Your task to perform on an android device: What's on my calendar tomorrow? Image 0: 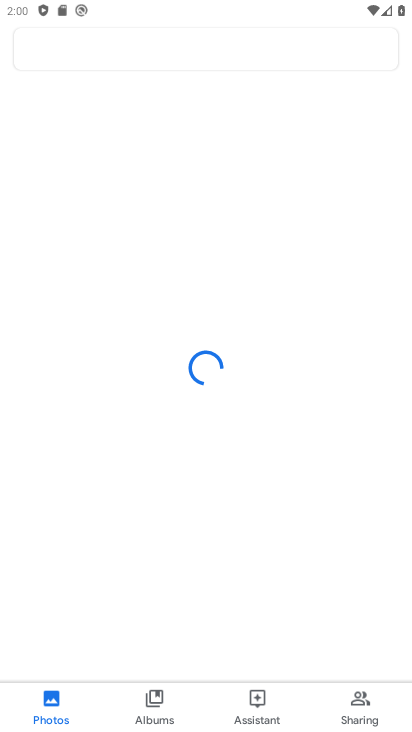
Step 0: press back button
Your task to perform on an android device: What's on my calendar tomorrow? Image 1: 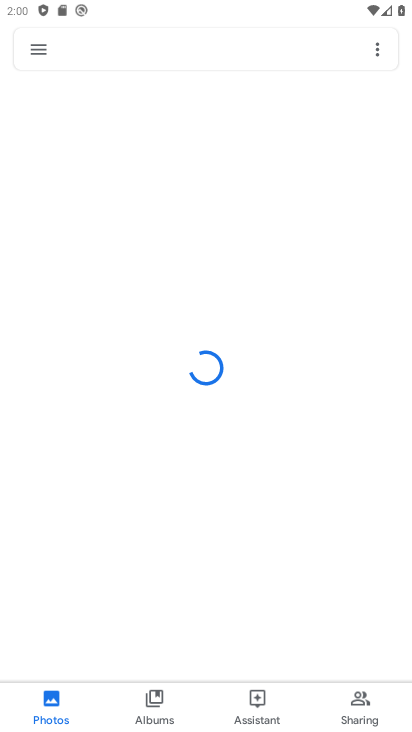
Step 1: press back button
Your task to perform on an android device: What's on my calendar tomorrow? Image 2: 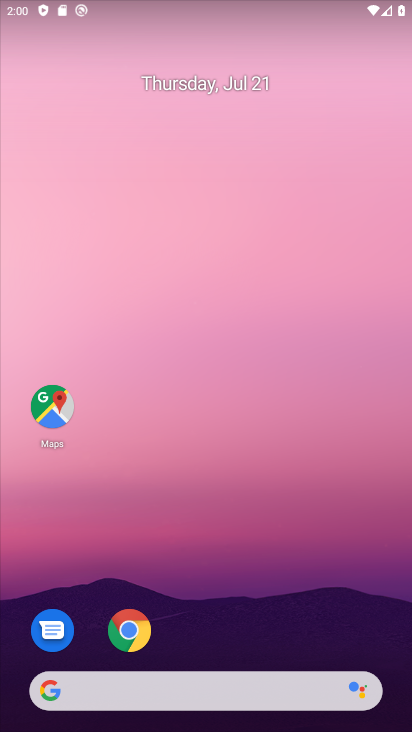
Step 2: drag from (236, 677) to (148, 144)
Your task to perform on an android device: What's on my calendar tomorrow? Image 3: 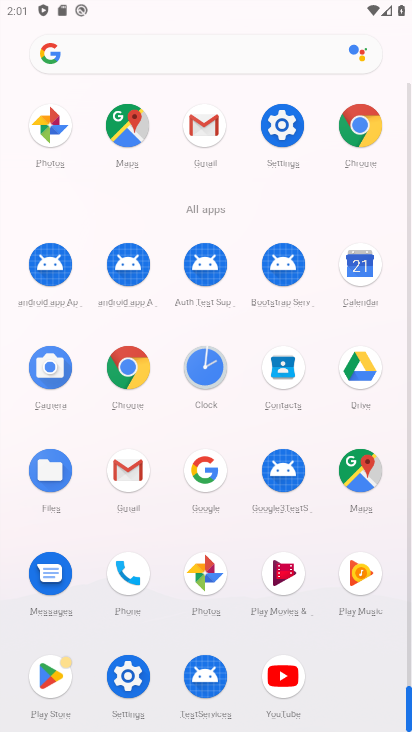
Step 3: click (360, 264)
Your task to perform on an android device: What's on my calendar tomorrow? Image 4: 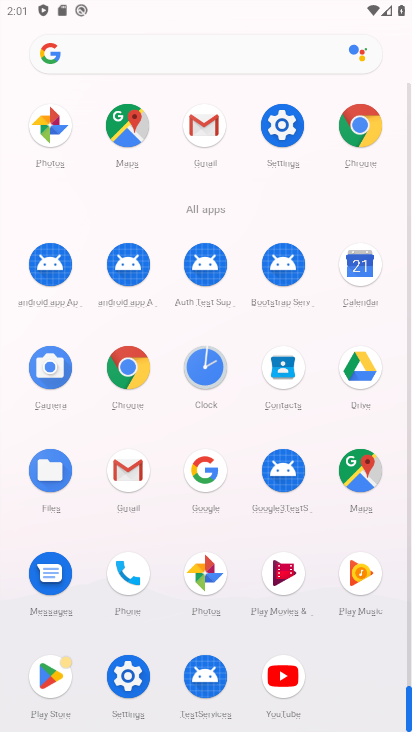
Step 4: click (360, 265)
Your task to perform on an android device: What's on my calendar tomorrow? Image 5: 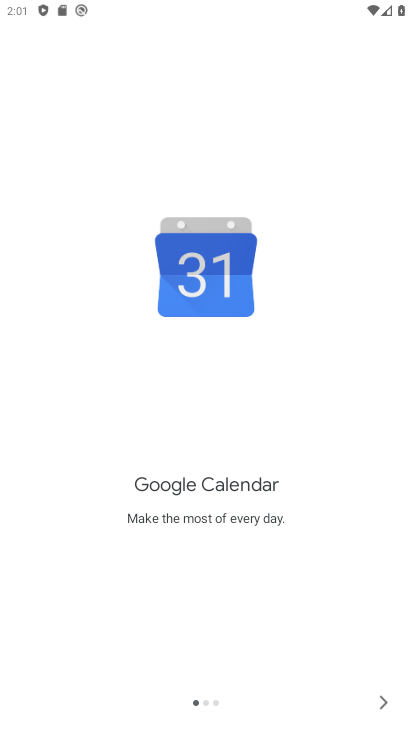
Step 5: click (378, 689)
Your task to perform on an android device: What's on my calendar tomorrow? Image 6: 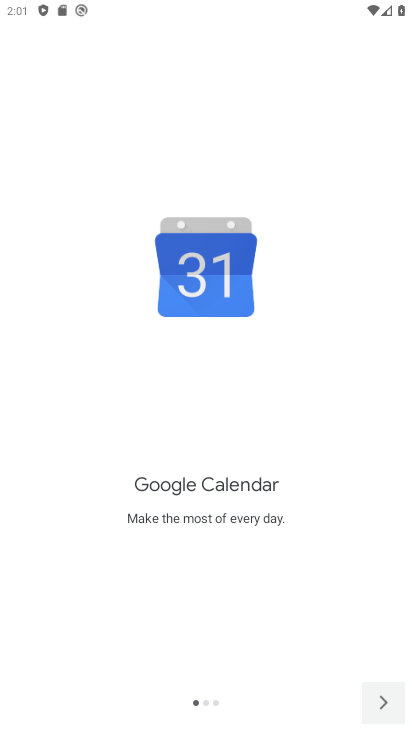
Step 6: click (370, 698)
Your task to perform on an android device: What's on my calendar tomorrow? Image 7: 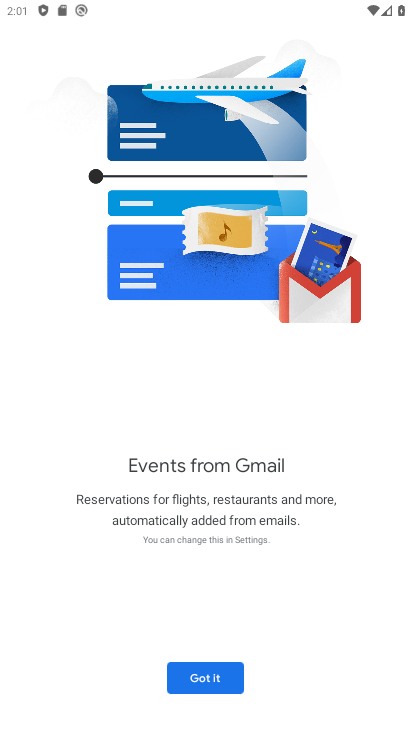
Step 7: click (206, 666)
Your task to perform on an android device: What's on my calendar tomorrow? Image 8: 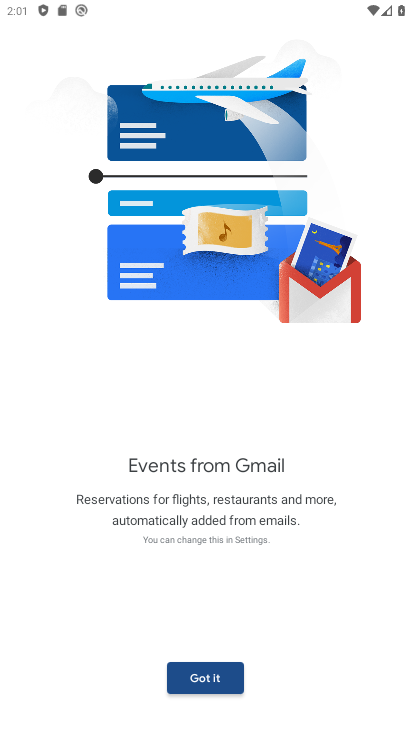
Step 8: click (207, 667)
Your task to perform on an android device: What's on my calendar tomorrow? Image 9: 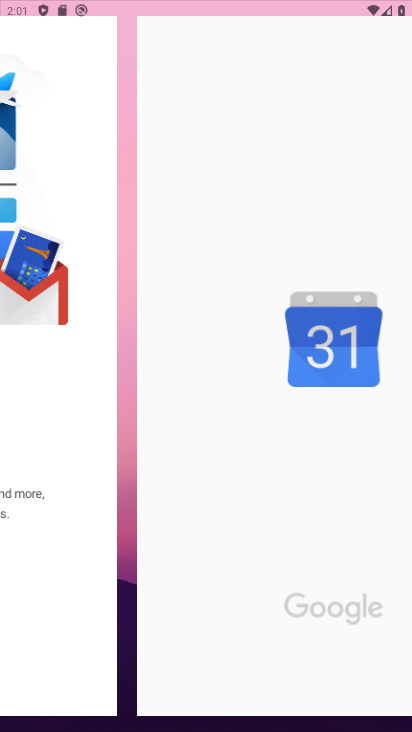
Step 9: click (209, 669)
Your task to perform on an android device: What's on my calendar tomorrow? Image 10: 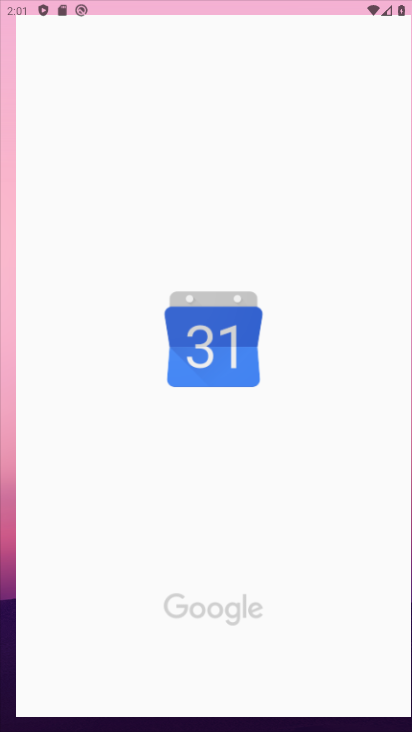
Step 10: click (209, 669)
Your task to perform on an android device: What's on my calendar tomorrow? Image 11: 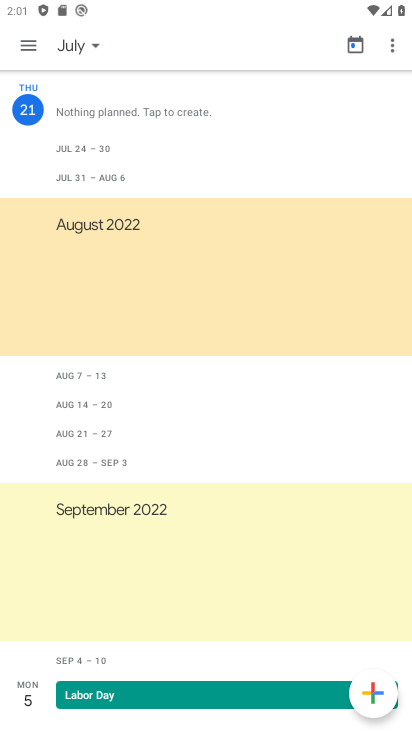
Step 11: click (99, 47)
Your task to perform on an android device: What's on my calendar tomorrow? Image 12: 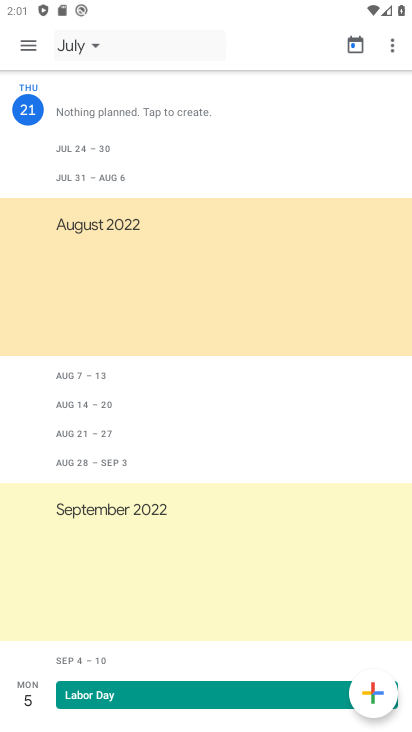
Step 12: click (99, 47)
Your task to perform on an android device: What's on my calendar tomorrow? Image 13: 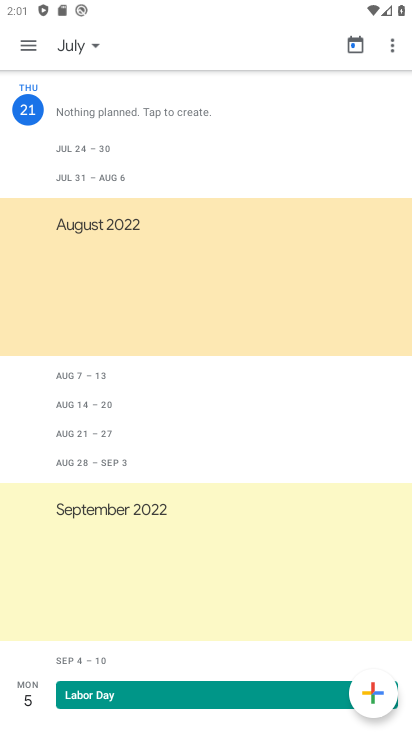
Step 13: click (94, 43)
Your task to perform on an android device: What's on my calendar tomorrow? Image 14: 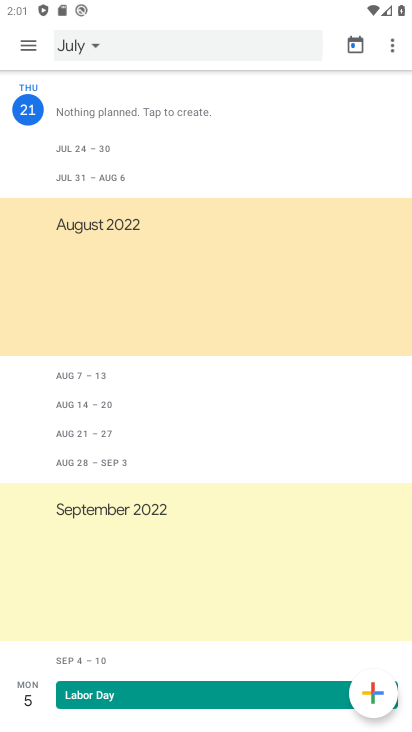
Step 14: click (94, 41)
Your task to perform on an android device: What's on my calendar tomorrow? Image 15: 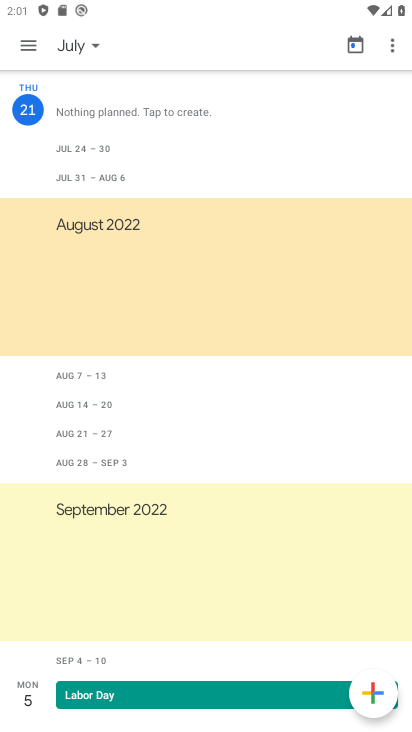
Step 15: click (98, 42)
Your task to perform on an android device: What's on my calendar tomorrow? Image 16: 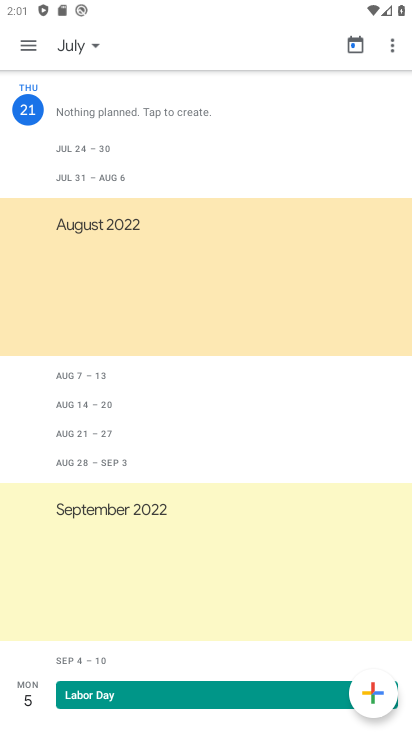
Step 16: click (97, 41)
Your task to perform on an android device: What's on my calendar tomorrow? Image 17: 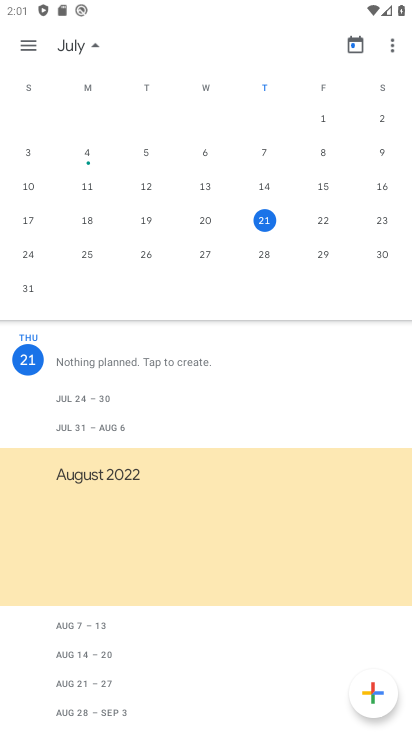
Step 17: click (328, 219)
Your task to perform on an android device: What's on my calendar tomorrow? Image 18: 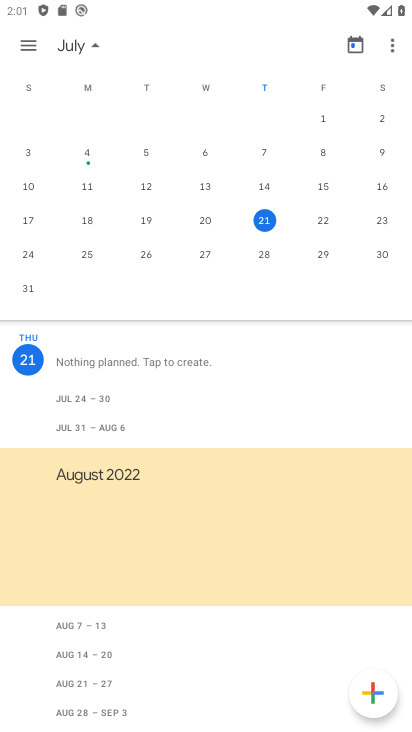
Step 18: click (327, 219)
Your task to perform on an android device: What's on my calendar tomorrow? Image 19: 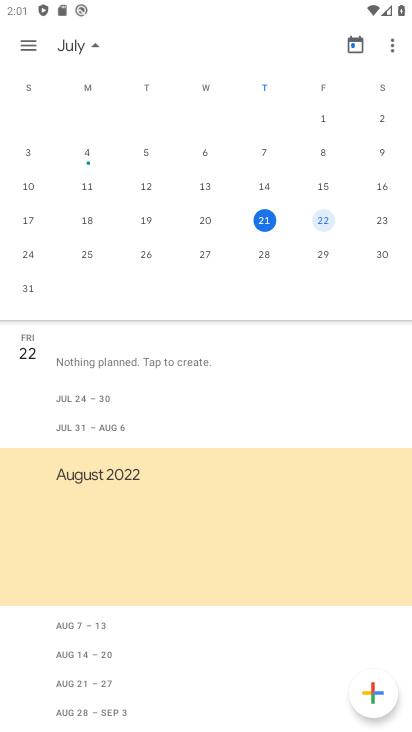
Step 19: click (329, 223)
Your task to perform on an android device: What's on my calendar tomorrow? Image 20: 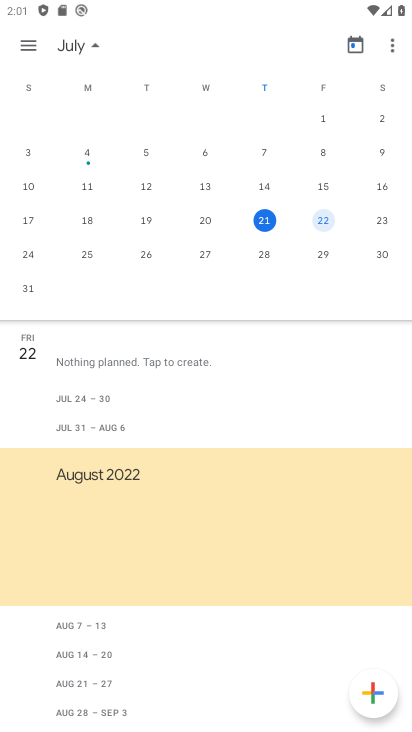
Step 20: click (330, 224)
Your task to perform on an android device: What's on my calendar tomorrow? Image 21: 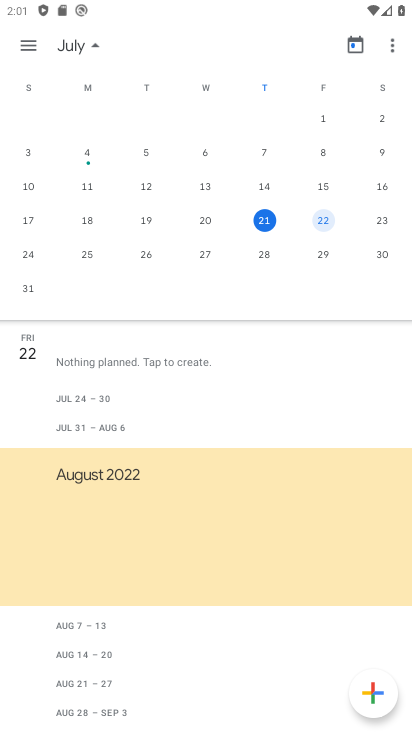
Step 21: click (325, 222)
Your task to perform on an android device: What's on my calendar tomorrow? Image 22: 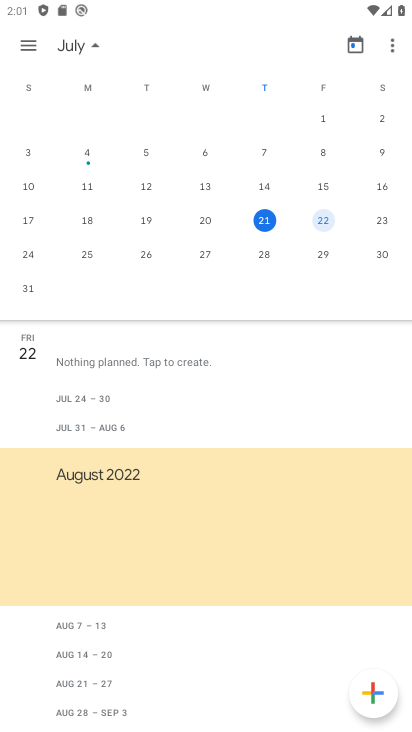
Step 22: click (326, 223)
Your task to perform on an android device: What's on my calendar tomorrow? Image 23: 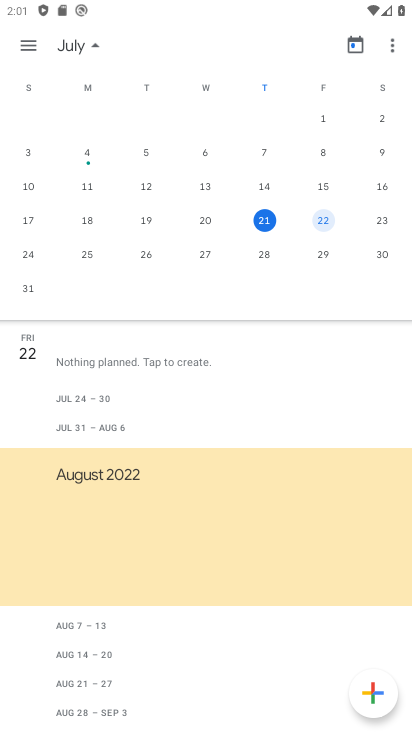
Step 23: click (326, 222)
Your task to perform on an android device: What's on my calendar tomorrow? Image 24: 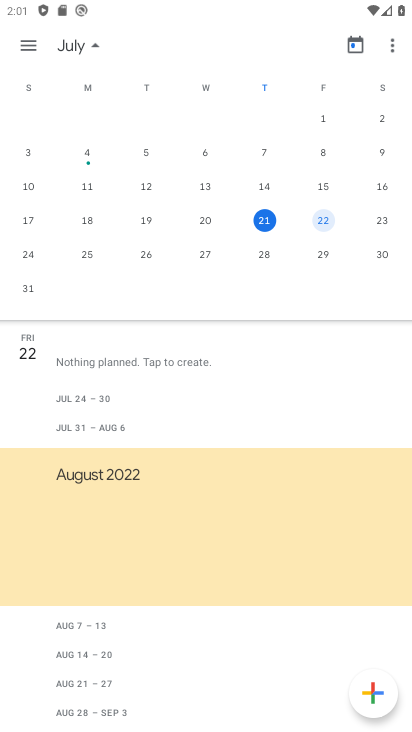
Step 24: click (326, 222)
Your task to perform on an android device: What's on my calendar tomorrow? Image 25: 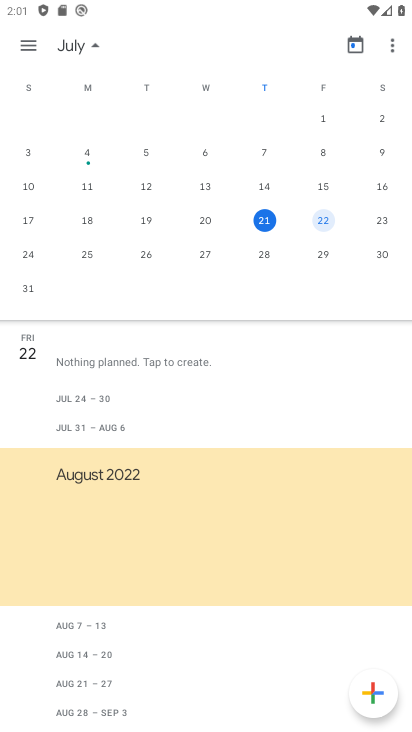
Step 25: click (327, 221)
Your task to perform on an android device: What's on my calendar tomorrow? Image 26: 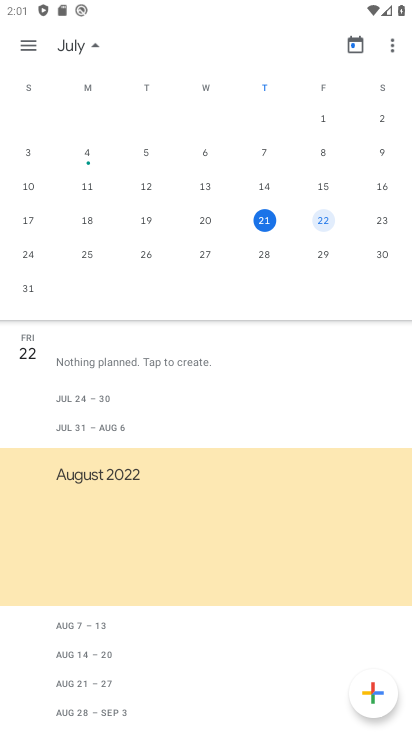
Step 26: click (327, 221)
Your task to perform on an android device: What's on my calendar tomorrow? Image 27: 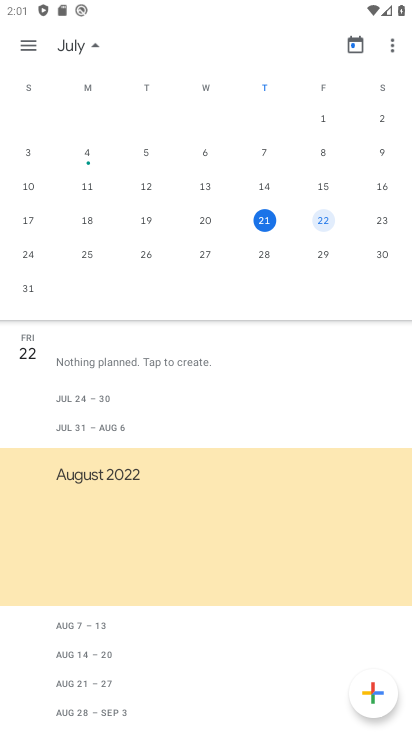
Step 27: click (327, 221)
Your task to perform on an android device: What's on my calendar tomorrow? Image 28: 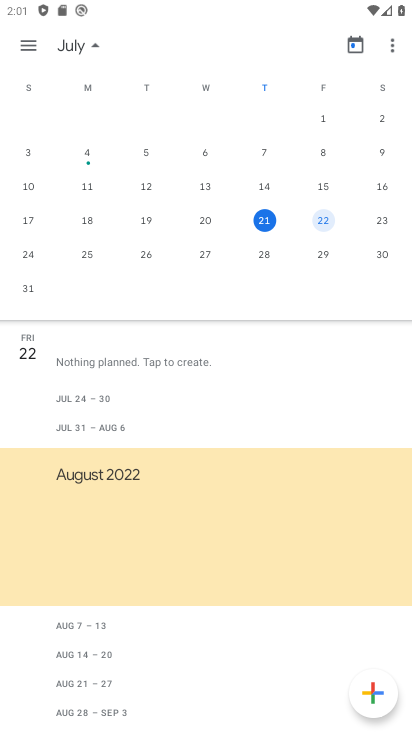
Step 28: task complete